Your task to perform on an android device: Open Google Chrome and open the bookmarks view Image 0: 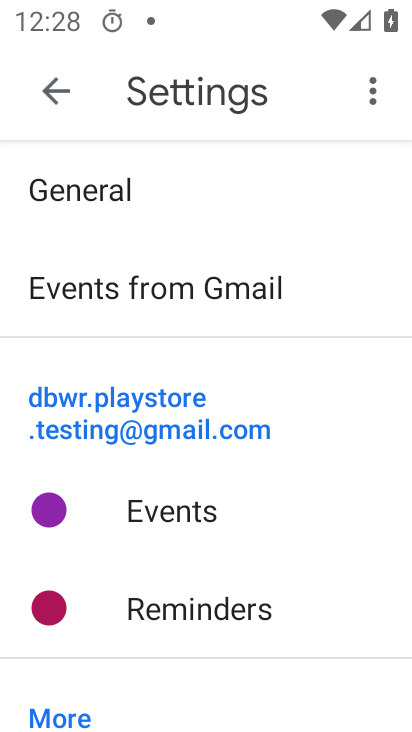
Step 0: press home button
Your task to perform on an android device: Open Google Chrome and open the bookmarks view Image 1: 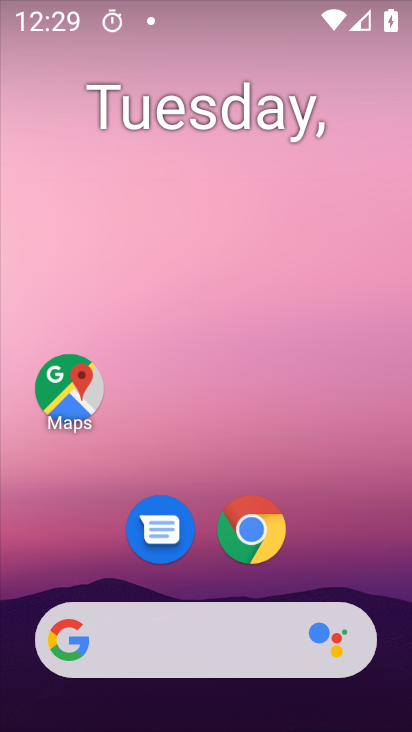
Step 1: click (252, 533)
Your task to perform on an android device: Open Google Chrome and open the bookmarks view Image 2: 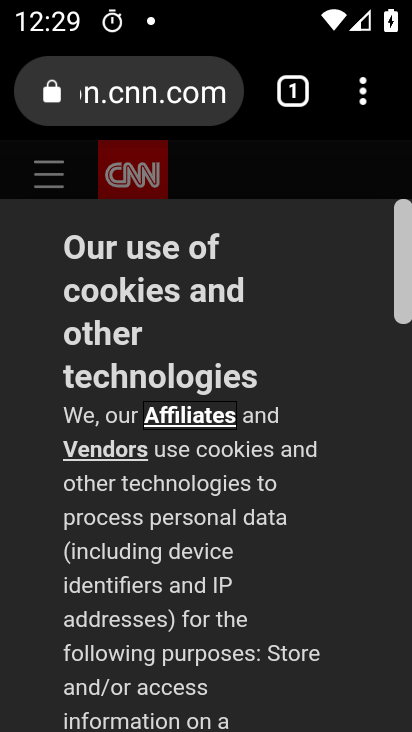
Step 2: task complete